Your task to perform on an android device: toggle notification dots Image 0: 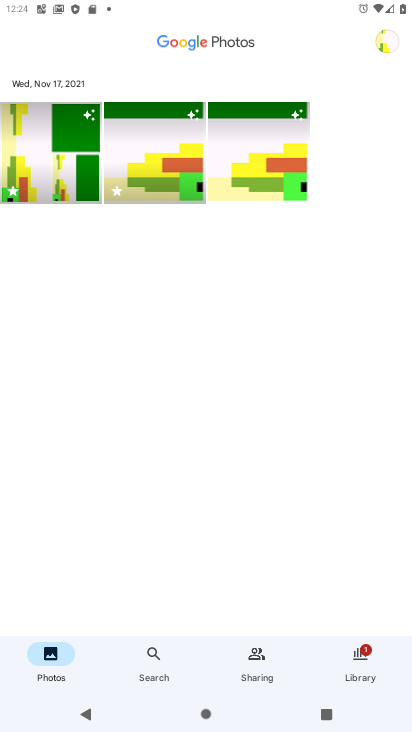
Step 0: press home button
Your task to perform on an android device: toggle notification dots Image 1: 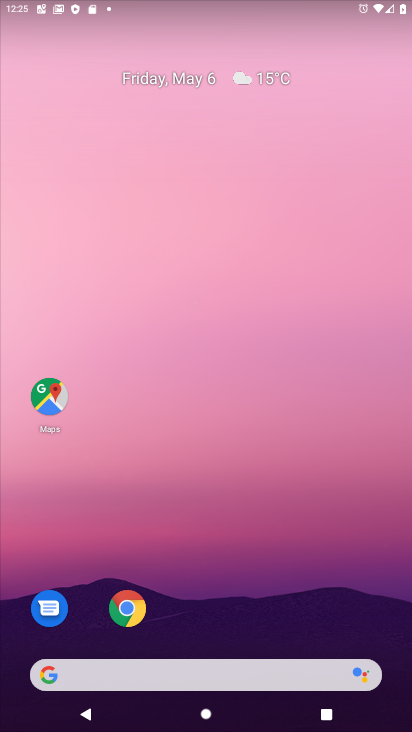
Step 1: drag from (250, 583) to (276, 42)
Your task to perform on an android device: toggle notification dots Image 2: 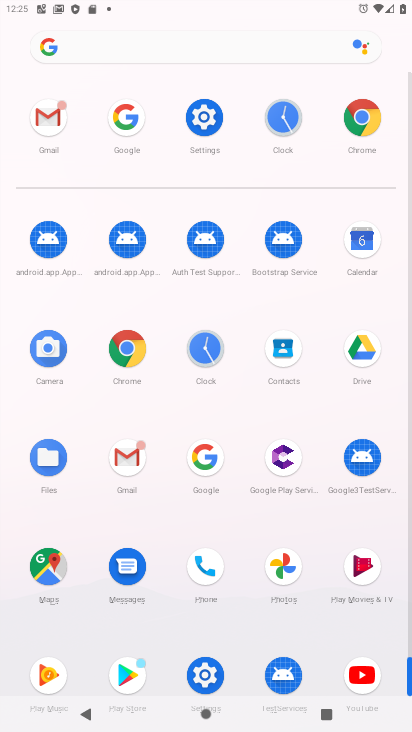
Step 2: click (203, 128)
Your task to perform on an android device: toggle notification dots Image 3: 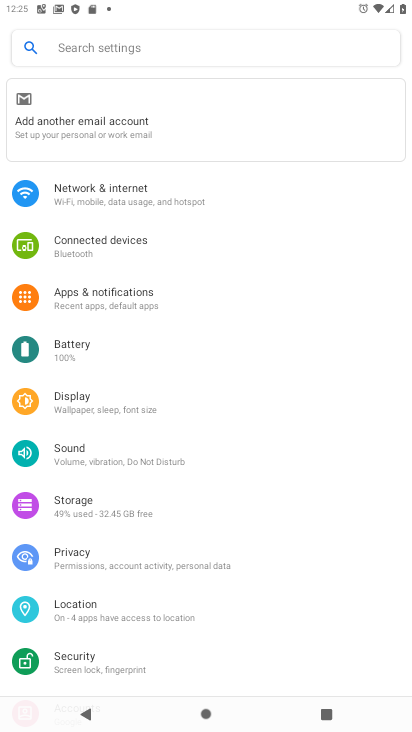
Step 3: click (136, 294)
Your task to perform on an android device: toggle notification dots Image 4: 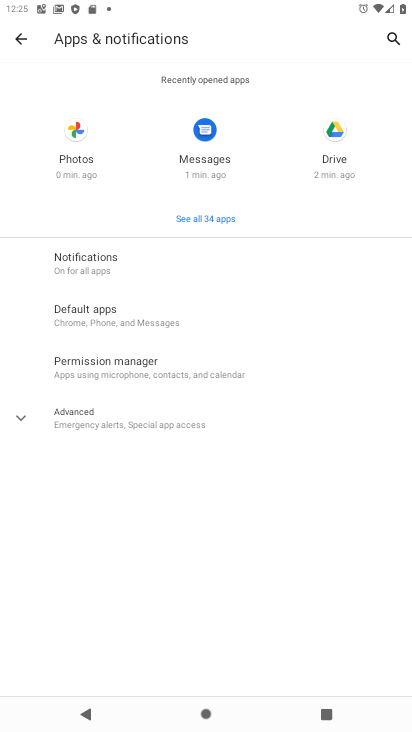
Step 4: click (133, 268)
Your task to perform on an android device: toggle notification dots Image 5: 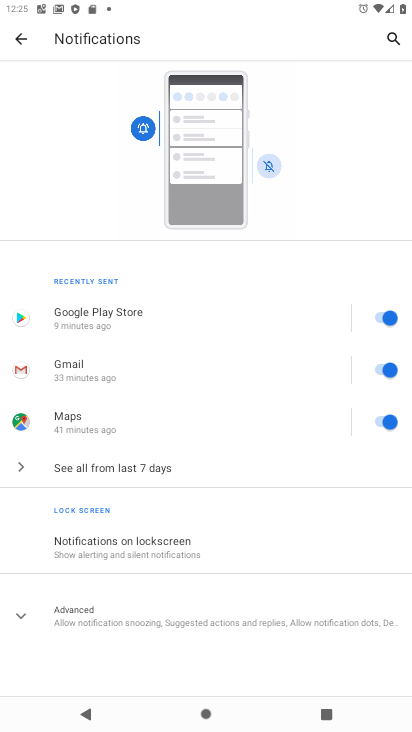
Step 5: click (22, 615)
Your task to perform on an android device: toggle notification dots Image 6: 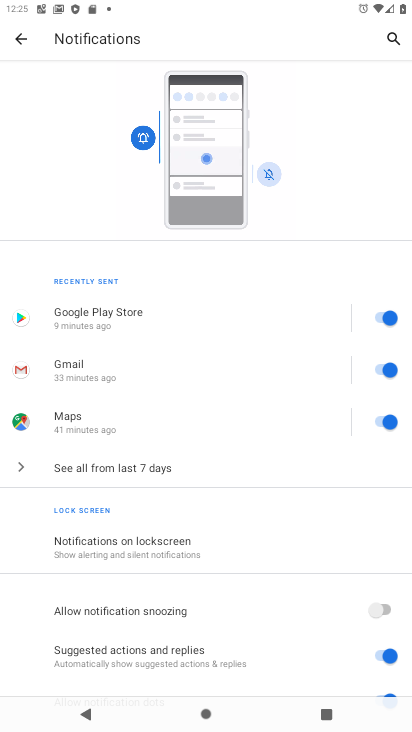
Step 6: drag from (158, 606) to (198, 280)
Your task to perform on an android device: toggle notification dots Image 7: 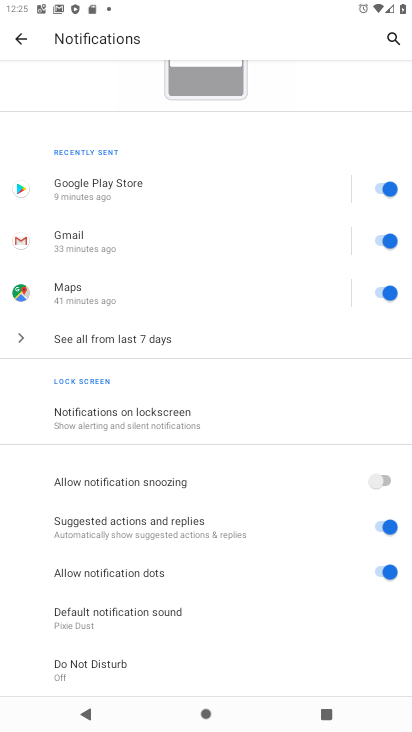
Step 7: click (173, 573)
Your task to perform on an android device: toggle notification dots Image 8: 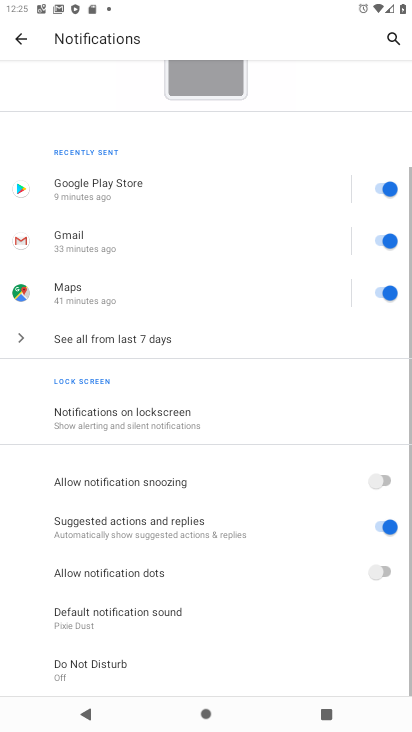
Step 8: click (173, 573)
Your task to perform on an android device: toggle notification dots Image 9: 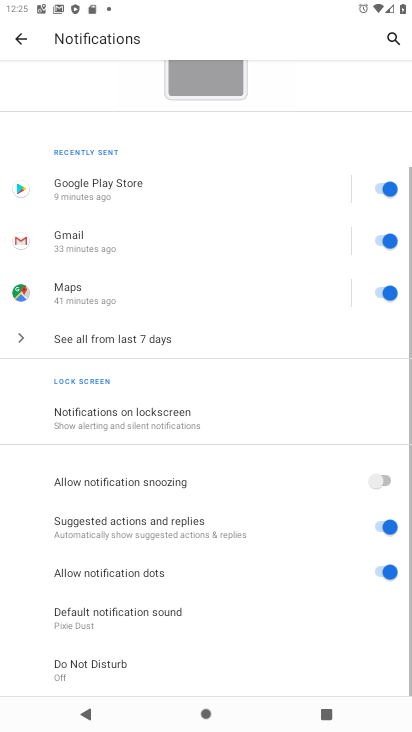
Step 9: click (173, 573)
Your task to perform on an android device: toggle notification dots Image 10: 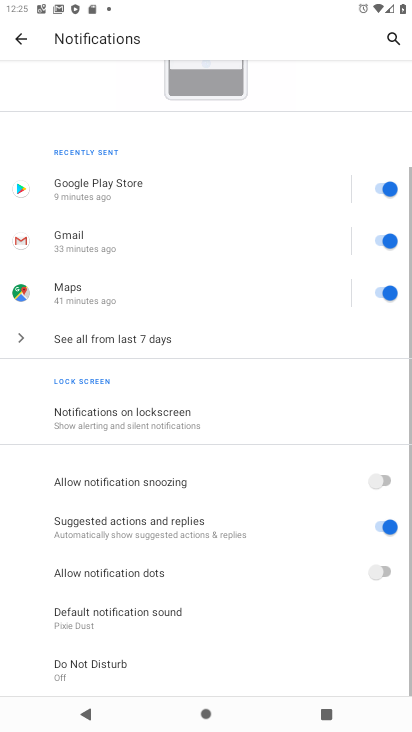
Step 10: task complete